Your task to perform on an android device: Go to settings Image 0: 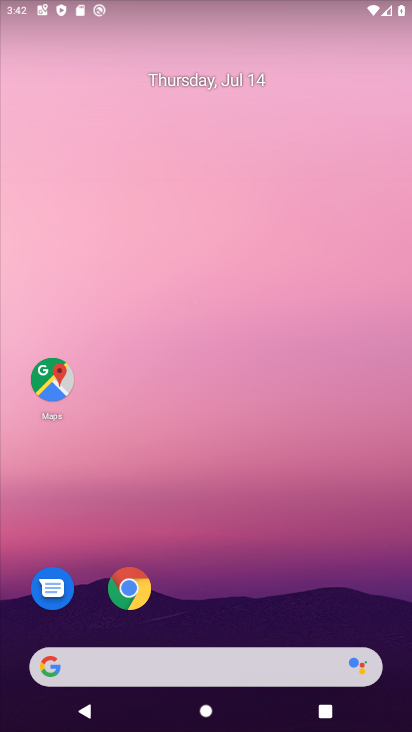
Step 0: drag from (287, 531) to (304, 28)
Your task to perform on an android device: Go to settings Image 1: 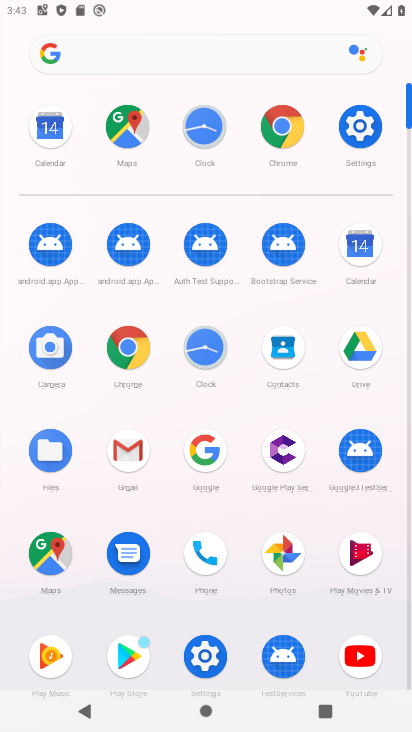
Step 1: click (367, 126)
Your task to perform on an android device: Go to settings Image 2: 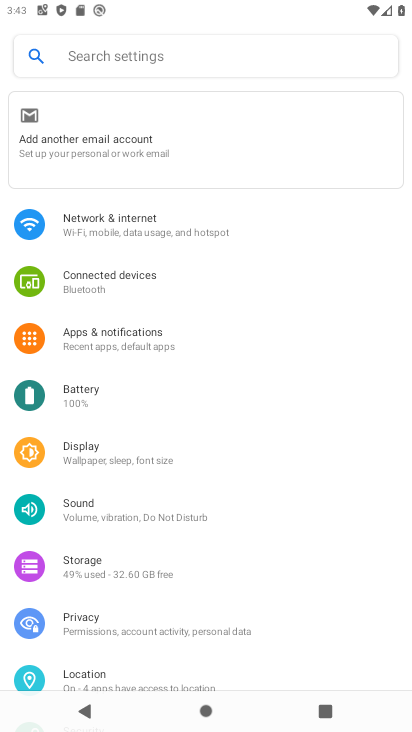
Step 2: task complete